Your task to perform on an android device: toggle notifications settings in the gmail app Image 0: 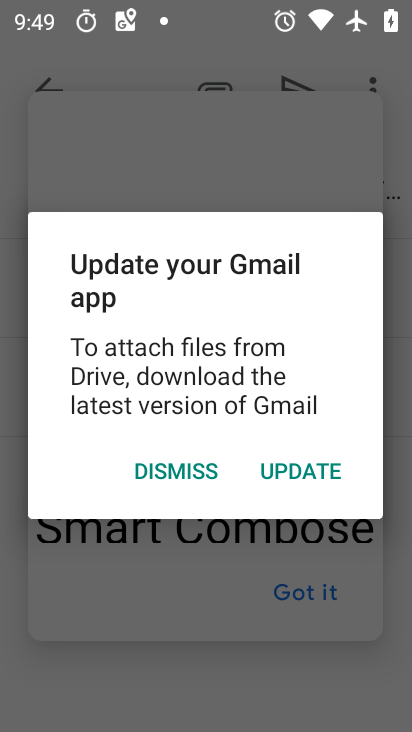
Step 0: drag from (54, 334) to (55, 252)
Your task to perform on an android device: toggle notifications settings in the gmail app Image 1: 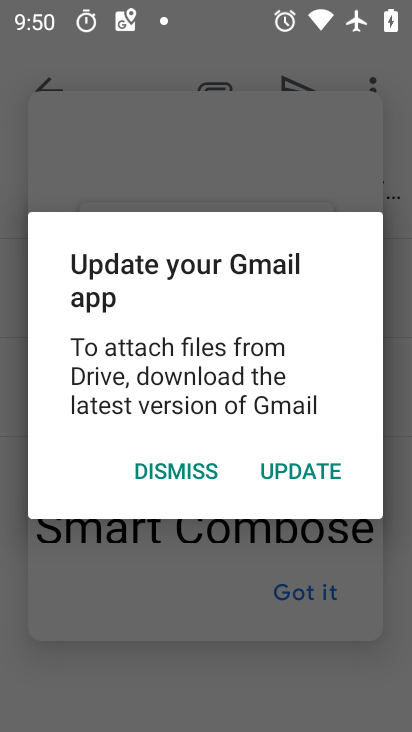
Step 1: press home button
Your task to perform on an android device: toggle notifications settings in the gmail app Image 2: 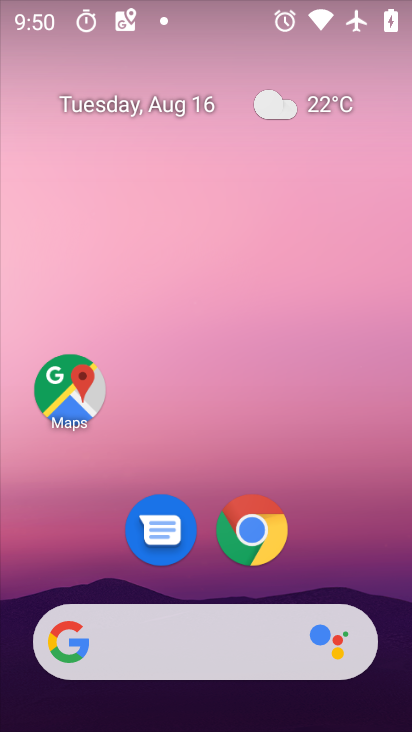
Step 2: drag from (352, 542) to (336, 88)
Your task to perform on an android device: toggle notifications settings in the gmail app Image 3: 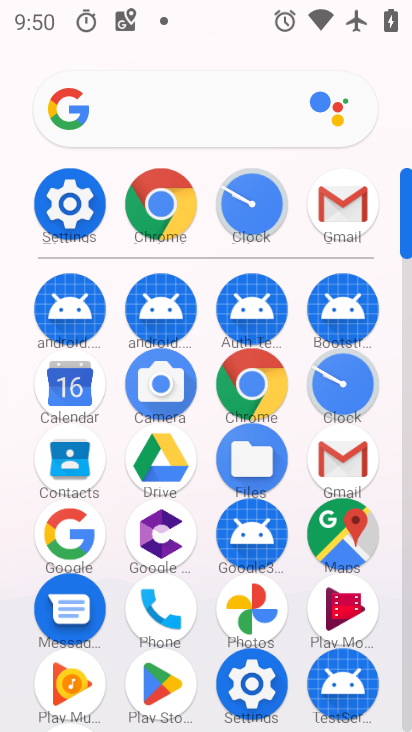
Step 3: click (341, 456)
Your task to perform on an android device: toggle notifications settings in the gmail app Image 4: 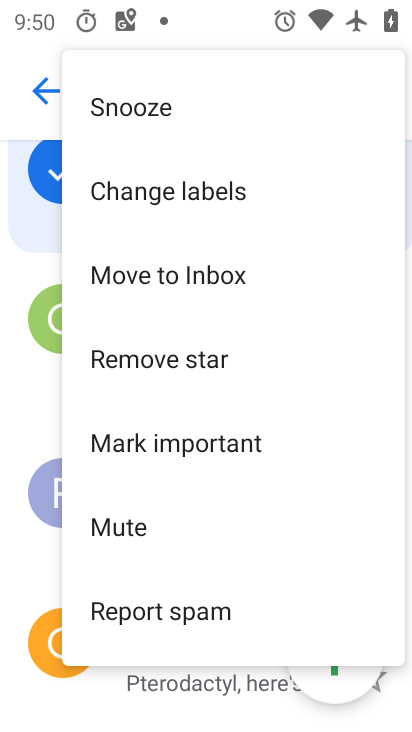
Step 4: drag from (177, 563) to (239, 156)
Your task to perform on an android device: toggle notifications settings in the gmail app Image 5: 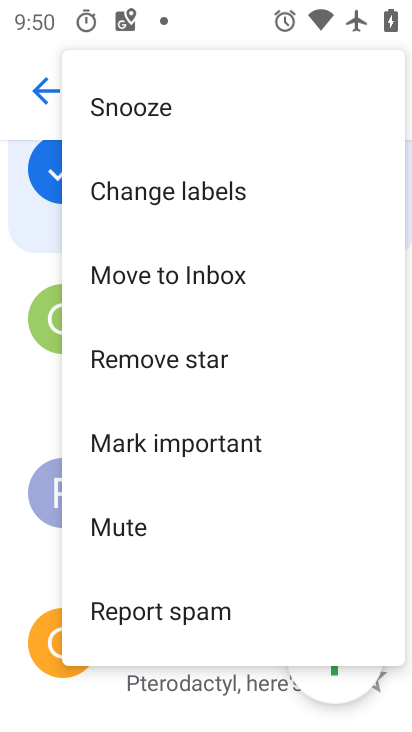
Step 5: click (23, 336)
Your task to perform on an android device: toggle notifications settings in the gmail app Image 6: 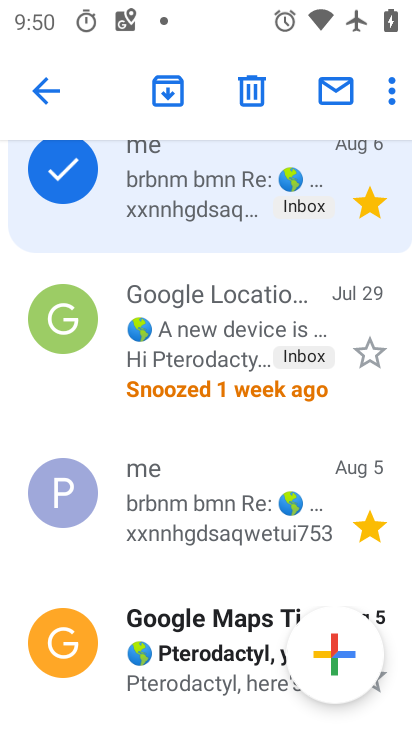
Step 6: click (50, 93)
Your task to perform on an android device: toggle notifications settings in the gmail app Image 7: 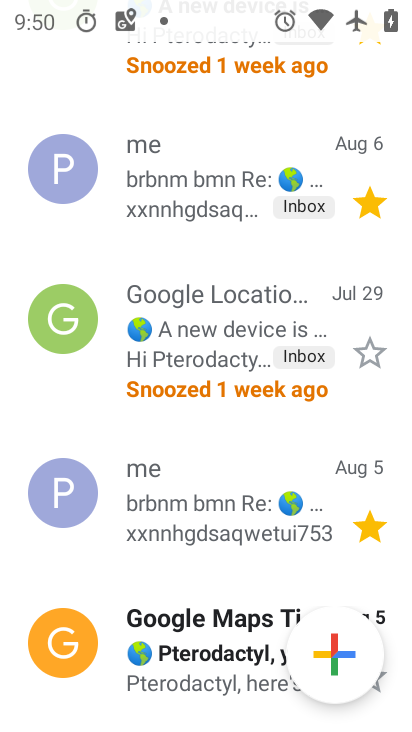
Step 7: drag from (306, 111) to (244, 668)
Your task to perform on an android device: toggle notifications settings in the gmail app Image 8: 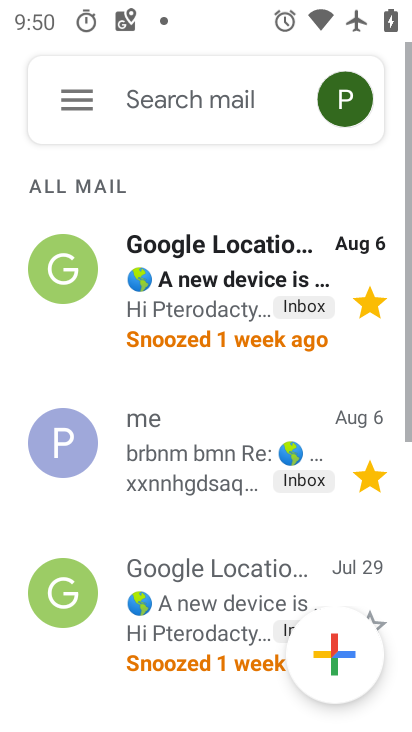
Step 8: click (75, 110)
Your task to perform on an android device: toggle notifications settings in the gmail app Image 9: 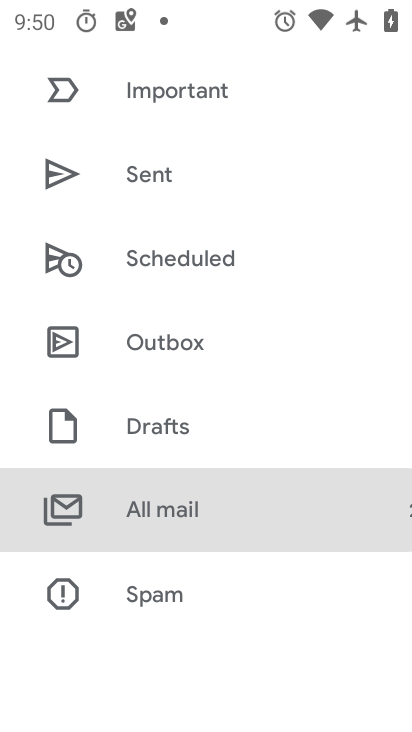
Step 9: drag from (184, 609) to (258, 238)
Your task to perform on an android device: toggle notifications settings in the gmail app Image 10: 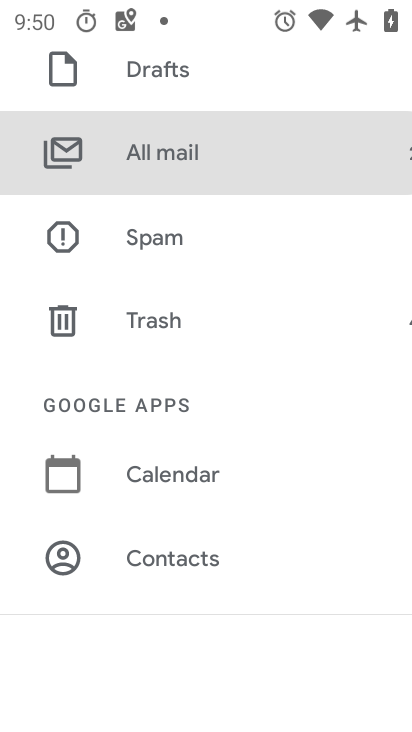
Step 10: drag from (192, 479) to (340, 132)
Your task to perform on an android device: toggle notifications settings in the gmail app Image 11: 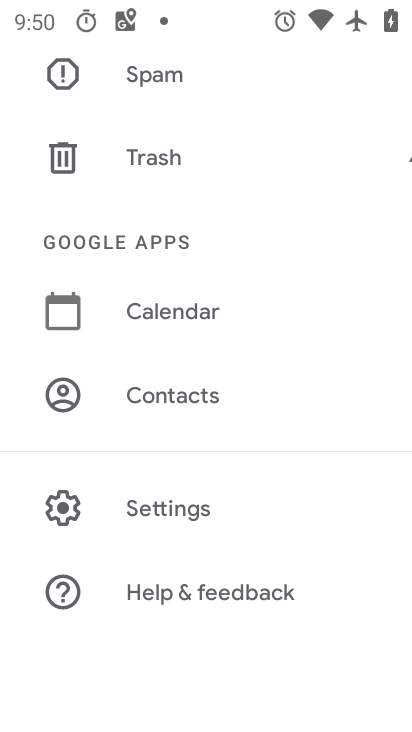
Step 11: click (155, 519)
Your task to perform on an android device: toggle notifications settings in the gmail app Image 12: 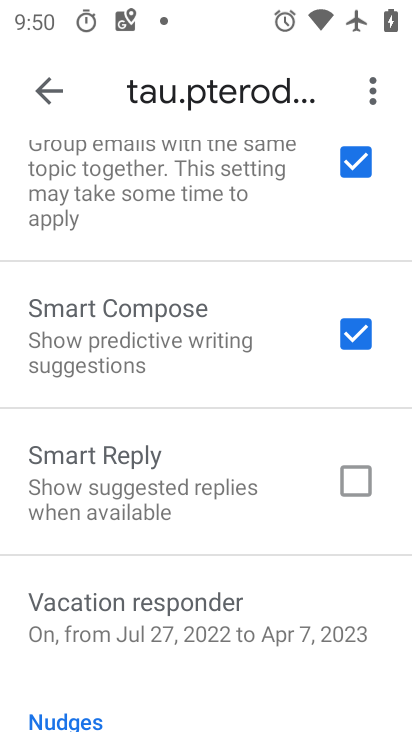
Step 12: drag from (218, 171) to (164, 576)
Your task to perform on an android device: toggle notifications settings in the gmail app Image 13: 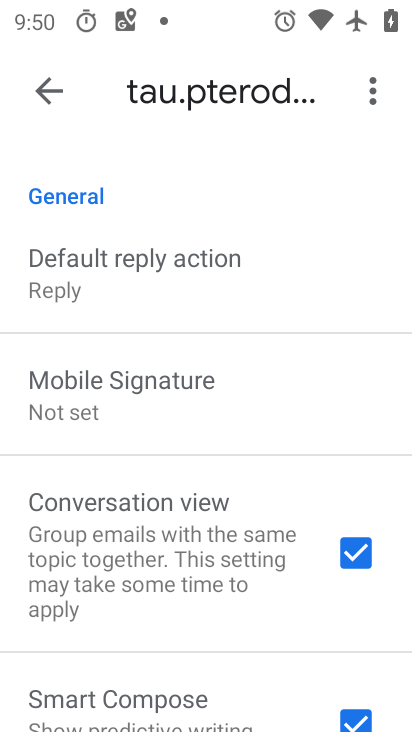
Step 13: drag from (218, 181) to (178, 667)
Your task to perform on an android device: toggle notifications settings in the gmail app Image 14: 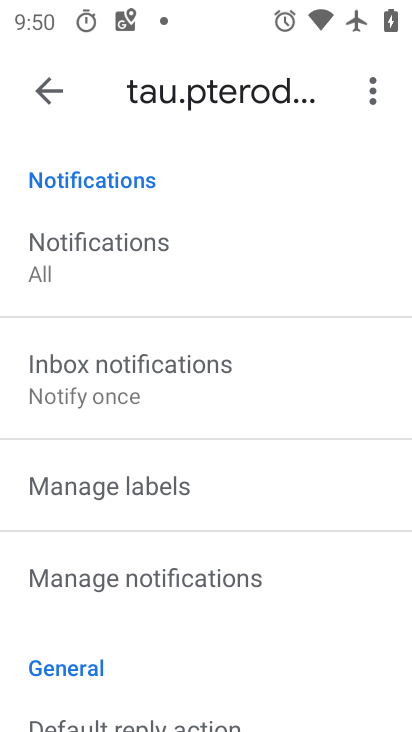
Step 14: click (132, 566)
Your task to perform on an android device: toggle notifications settings in the gmail app Image 15: 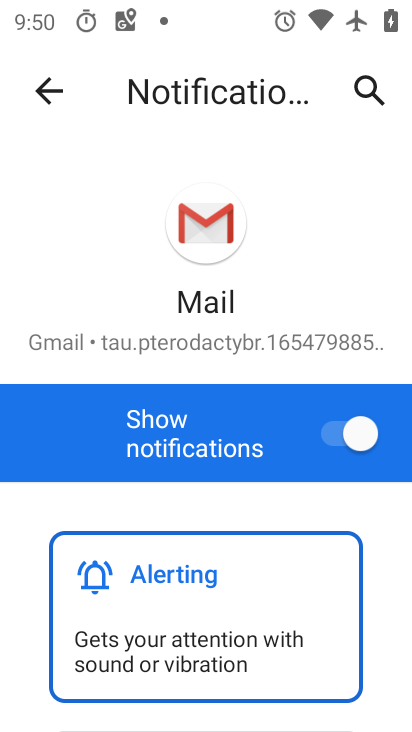
Step 15: click (339, 459)
Your task to perform on an android device: toggle notifications settings in the gmail app Image 16: 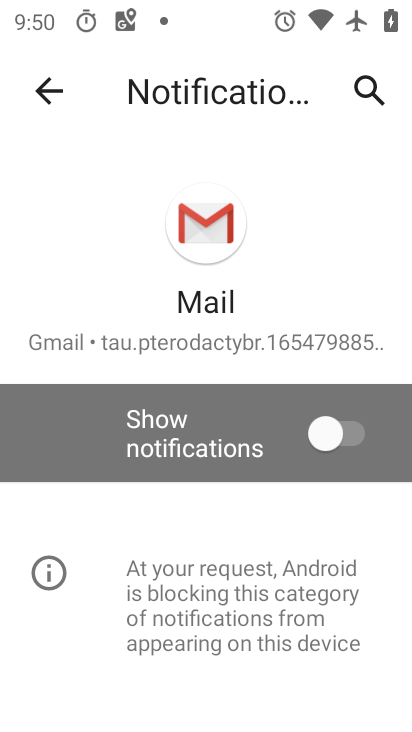
Step 16: task complete